Your task to perform on an android device: Open Chrome and go to the settings page Image 0: 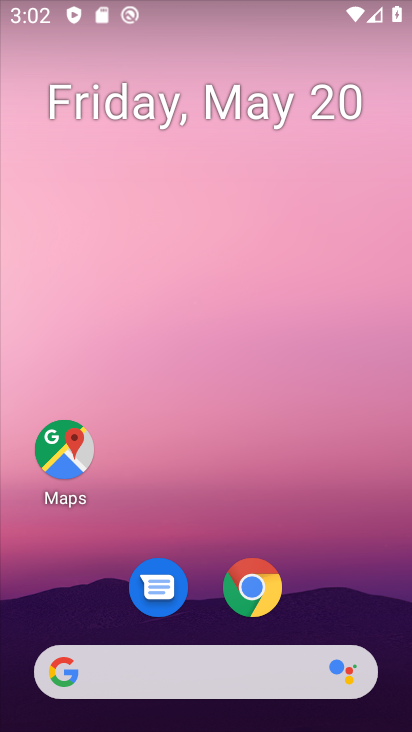
Step 0: click (250, 602)
Your task to perform on an android device: Open Chrome and go to the settings page Image 1: 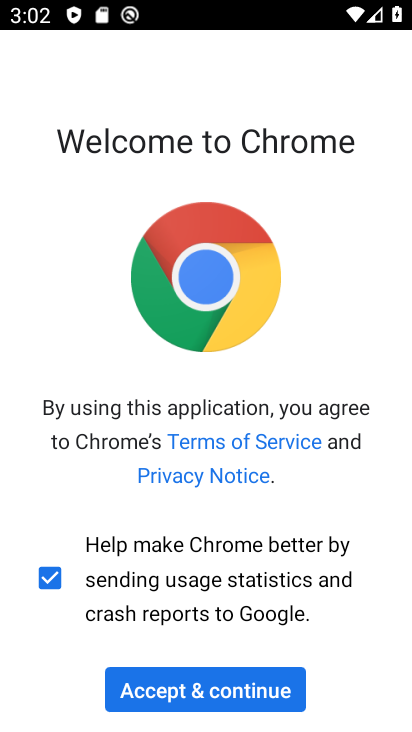
Step 1: click (190, 685)
Your task to perform on an android device: Open Chrome and go to the settings page Image 2: 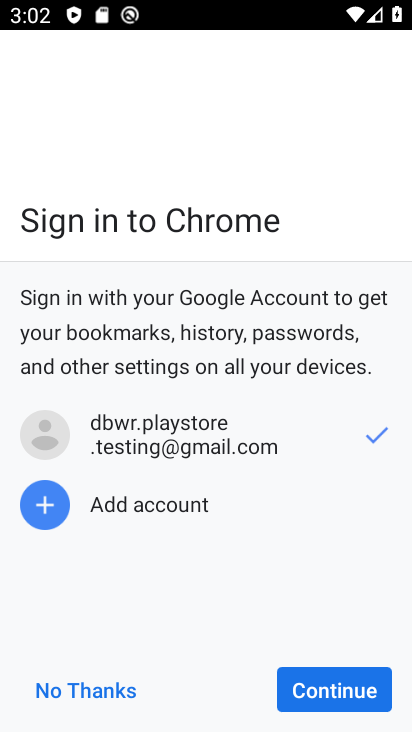
Step 2: click (388, 694)
Your task to perform on an android device: Open Chrome and go to the settings page Image 3: 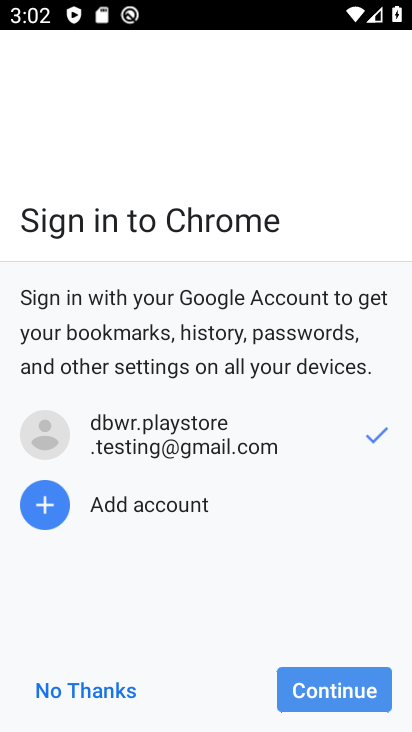
Step 3: click (381, 707)
Your task to perform on an android device: Open Chrome and go to the settings page Image 4: 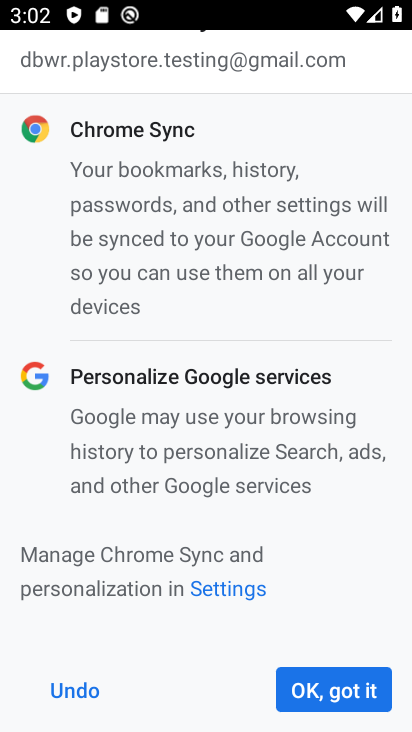
Step 4: click (381, 707)
Your task to perform on an android device: Open Chrome and go to the settings page Image 5: 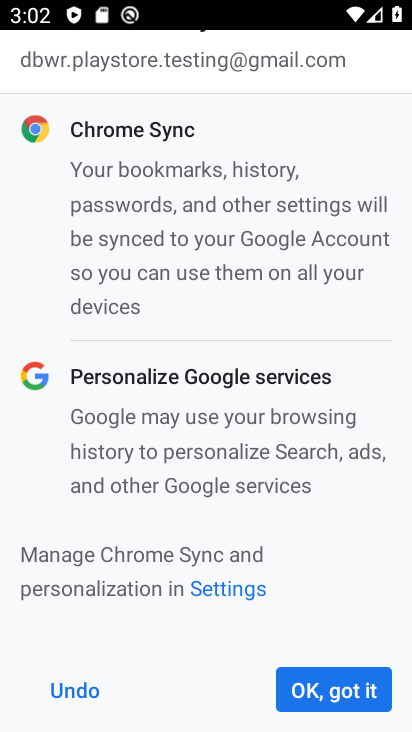
Step 5: click (381, 707)
Your task to perform on an android device: Open Chrome and go to the settings page Image 6: 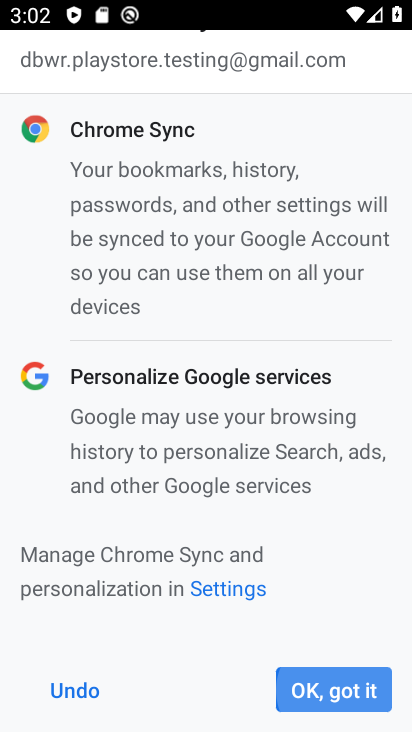
Step 6: click (381, 707)
Your task to perform on an android device: Open Chrome and go to the settings page Image 7: 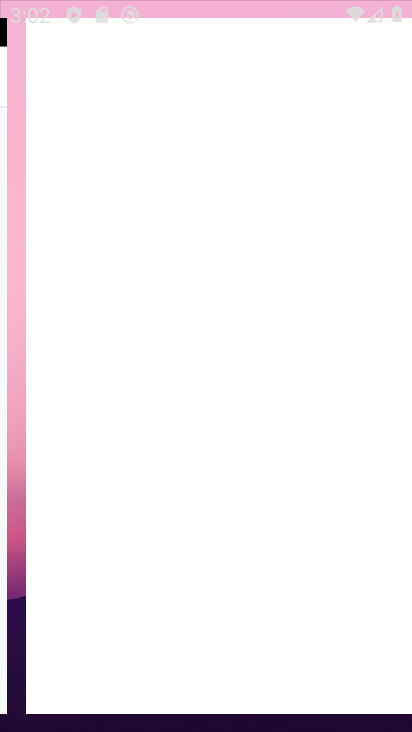
Step 7: click (381, 707)
Your task to perform on an android device: Open Chrome and go to the settings page Image 8: 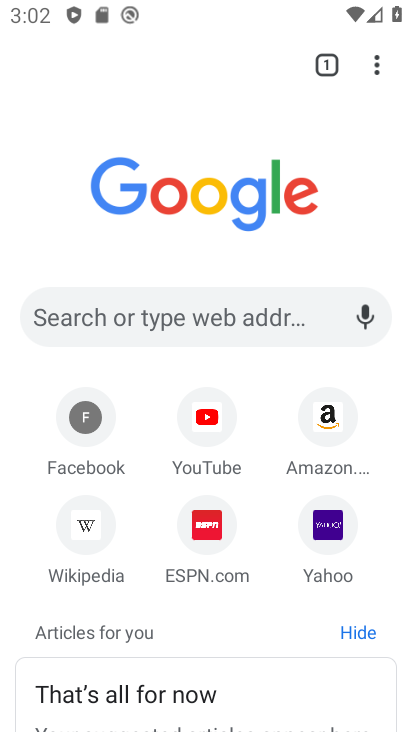
Step 8: task complete